Your task to perform on an android device: show emergency info Image 0: 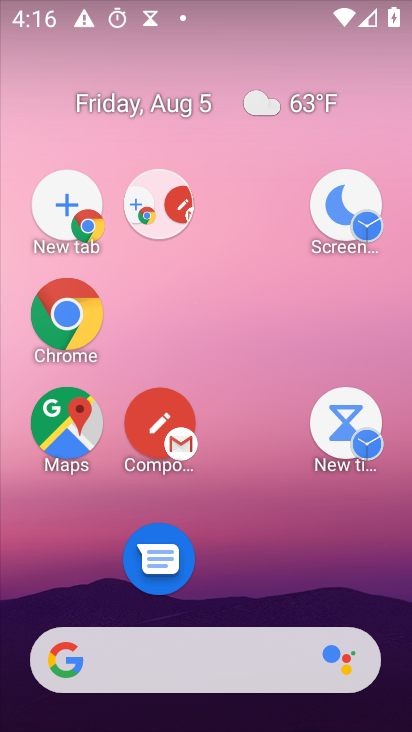
Step 0: drag from (323, 317) to (333, 245)
Your task to perform on an android device: show emergency info Image 1: 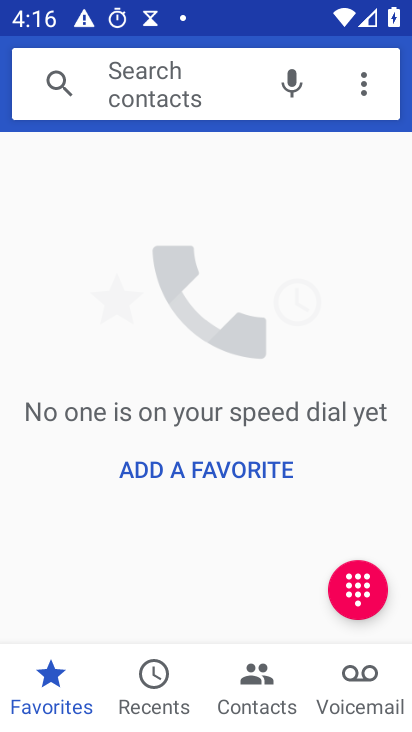
Step 1: drag from (357, 79) to (214, 593)
Your task to perform on an android device: show emergency info Image 2: 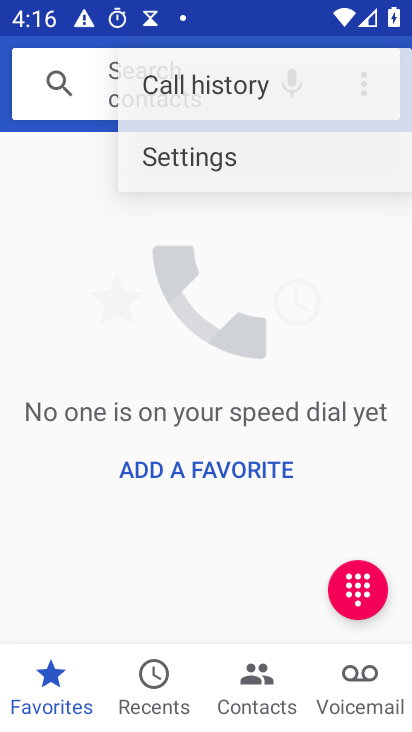
Step 2: drag from (266, 261) to (311, 284)
Your task to perform on an android device: show emergency info Image 3: 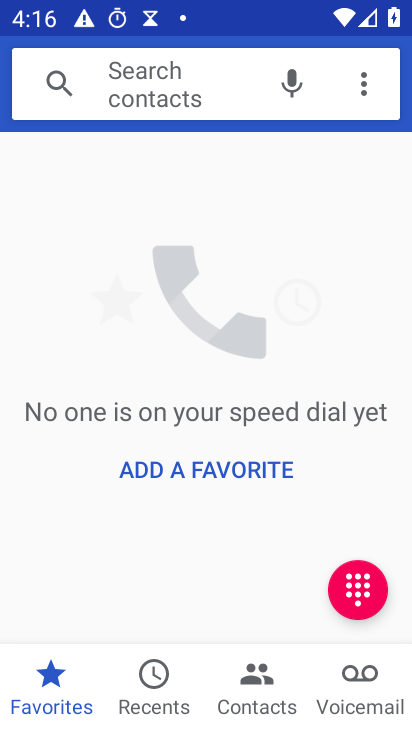
Step 3: press back button
Your task to perform on an android device: show emergency info Image 4: 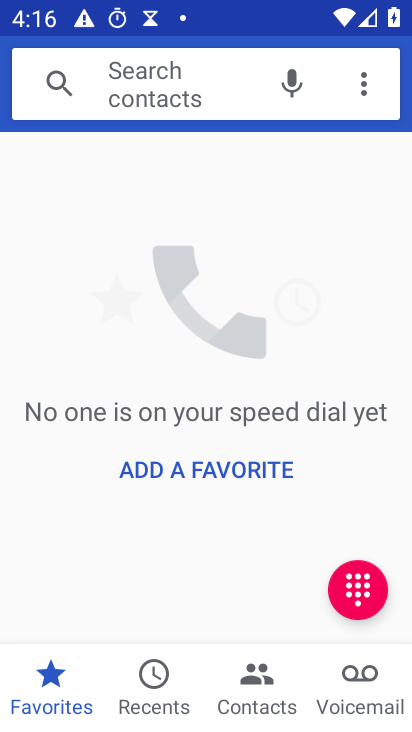
Step 4: press back button
Your task to perform on an android device: show emergency info Image 5: 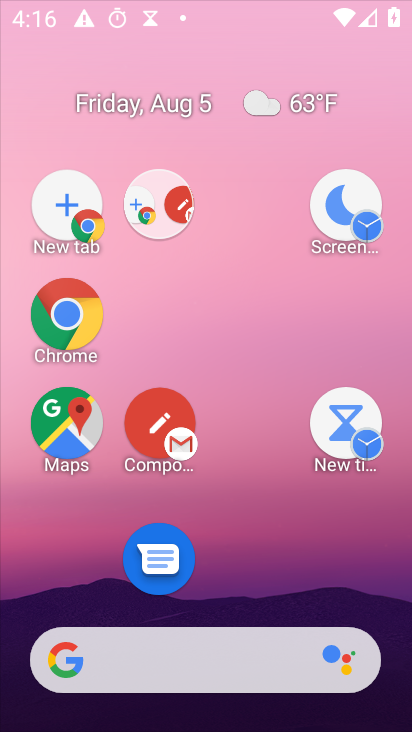
Step 5: press back button
Your task to perform on an android device: show emergency info Image 6: 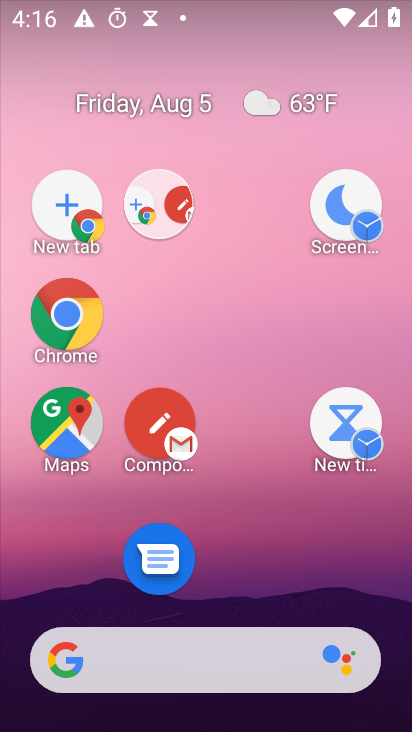
Step 6: drag from (178, 680) to (74, 64)
Your task to perform on an android device: show emergency info Image 7: 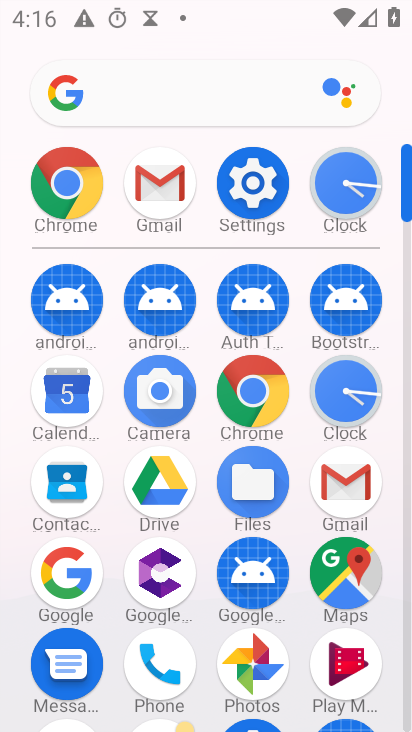
Step 7: drag from (116, 429) to (80, 126)
Your task to perform on an android device: show emergency info Image 8: 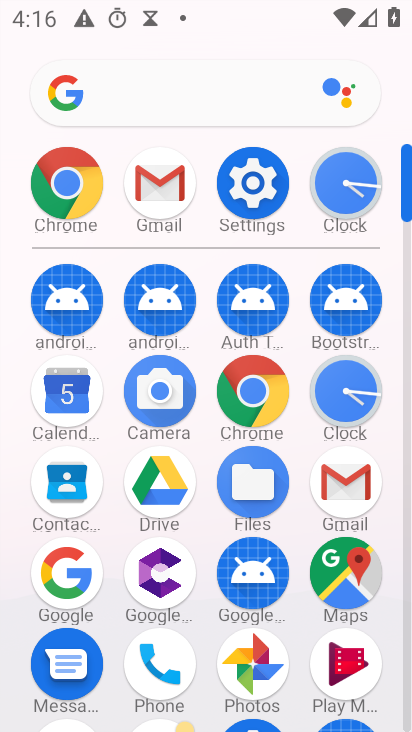
Step 8: click (239, 174)
Your task to perform on an android device: show emergency info Image 9: 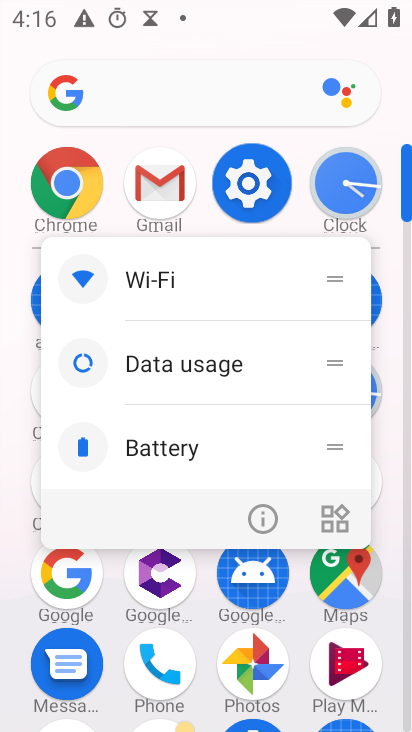
Step 9: click (246, 174)
Your task to perform on an android device: show emergency info Image 10: 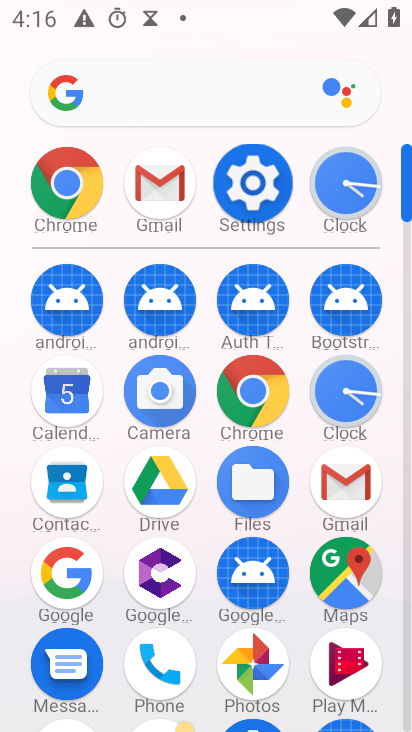
Step 10: click (245, 174)
Your task to perform on an android device: show emergency info Image 11: 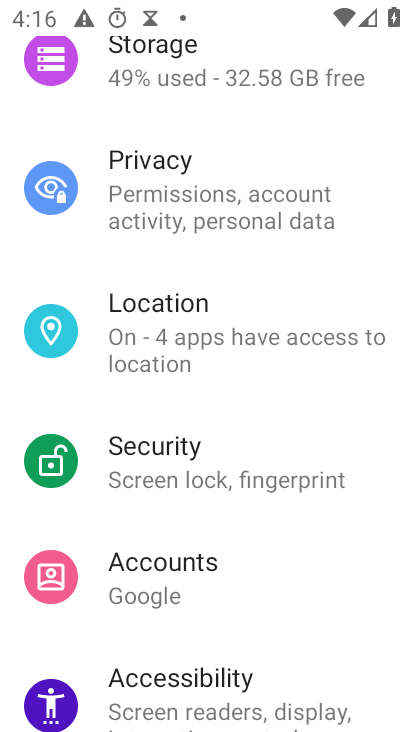
Step 11: task complete